Your task to perform on an android device: set an alarm Image 0: 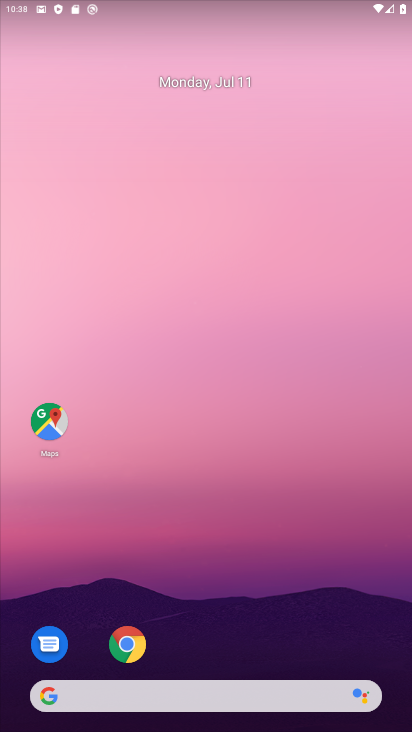
Step 0: drag from (280, 679) to (231, 204)
Your task to perform on an android device: set an alarm Image 1: 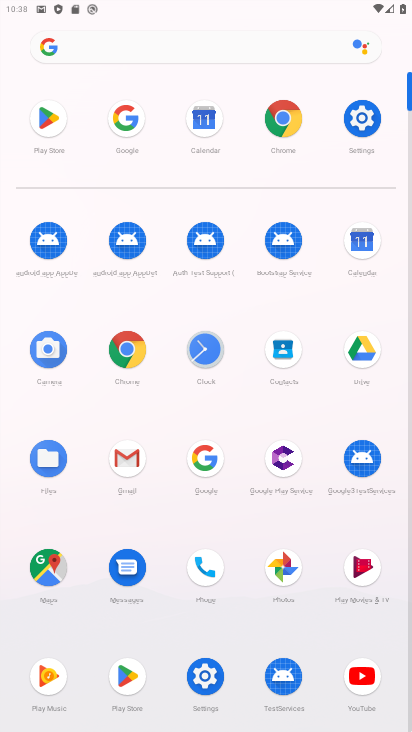
Step 1: click (202, 331)
Your task to perform on an android device: set an alarm Image 2: 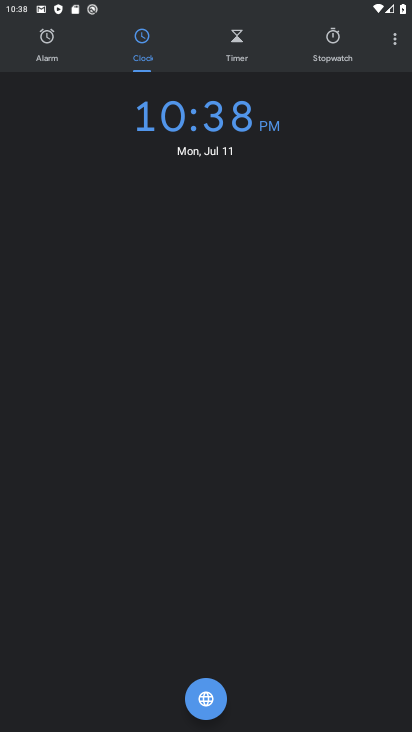
Step 2: click (44, 47)
Your task to perform on an android device: set an alarm Image 3: 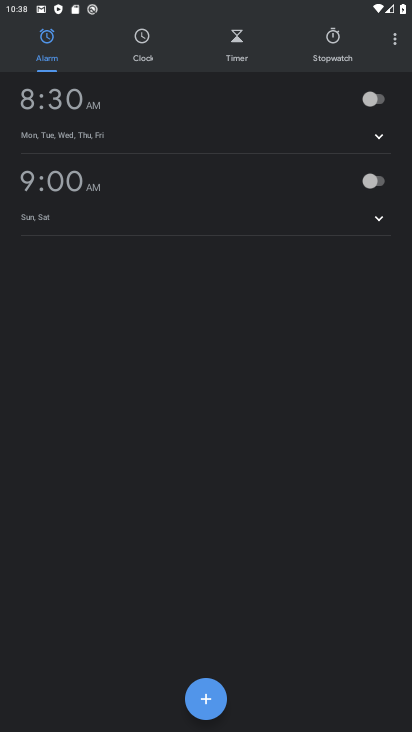
Step 3: click (379, 91)
Your task to perform on an android device: set an alarm Image 4: 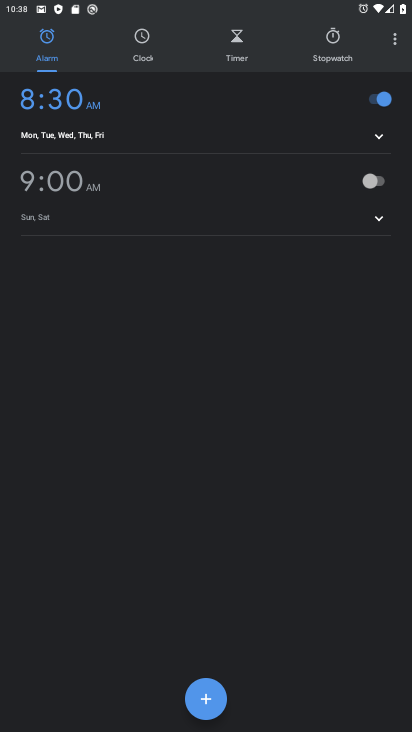
Step 4: task complete